Your task to perform on an android device: check storage Image 0: 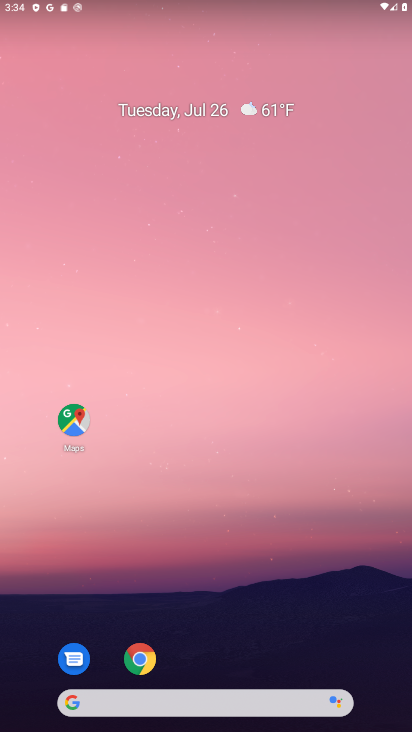
Step 0: drag from (279, 612) to (257, 21)
Your task to perform on an android device: check storage Image 1: 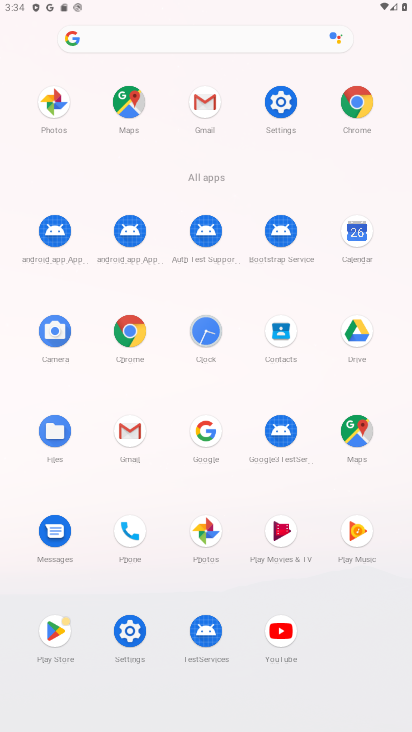
Step 1: click (277, 101)
Your task to perform on an android device: check storage Image 2: 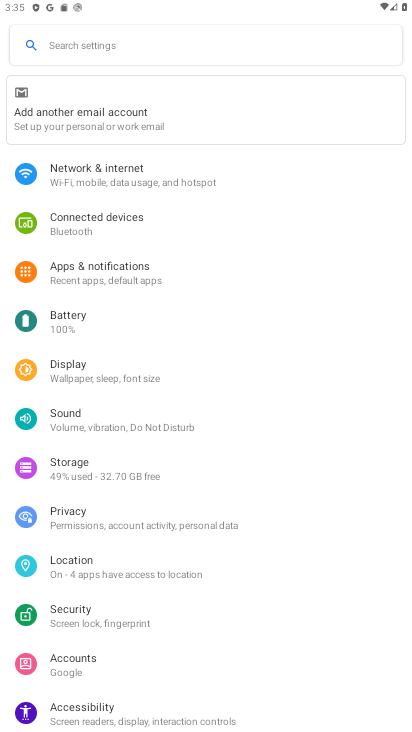
Step 2: click (113, 478)
Your task to perform on an android device: check storage Image 3: 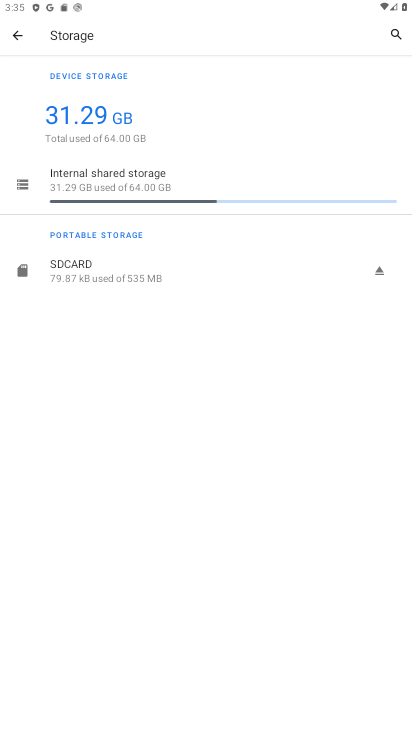
Step 3: task complete